Your task to perform on an android device: Open Android settings Image 0: 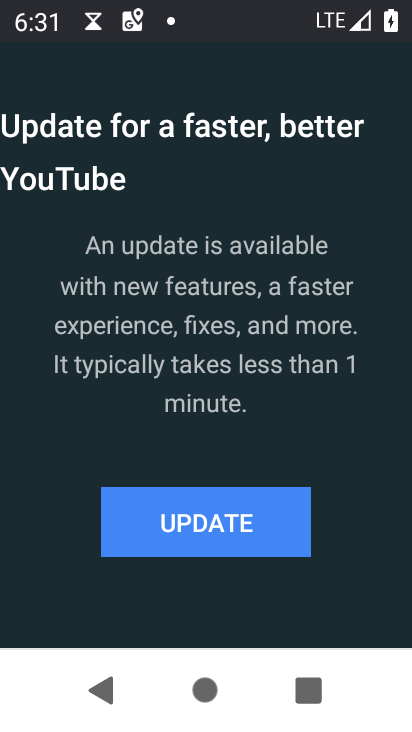
Step 0: press home button
Your task to perform on an android device: Open Android settings Image 1: 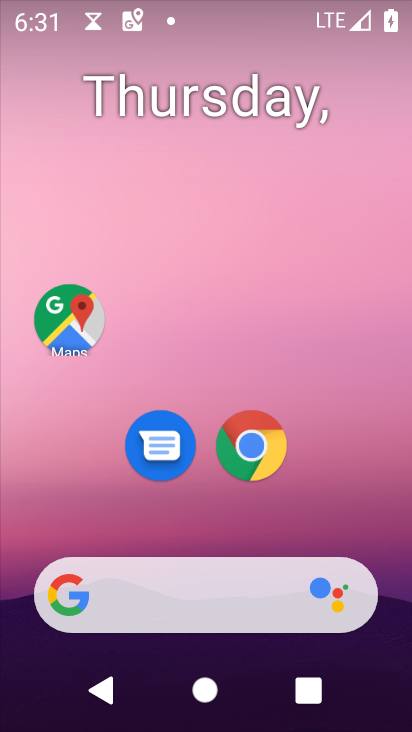
Step 1: drag from (320, 514) to (361, 115)
Your task to perform on an android device: Open Android settings Image 2: 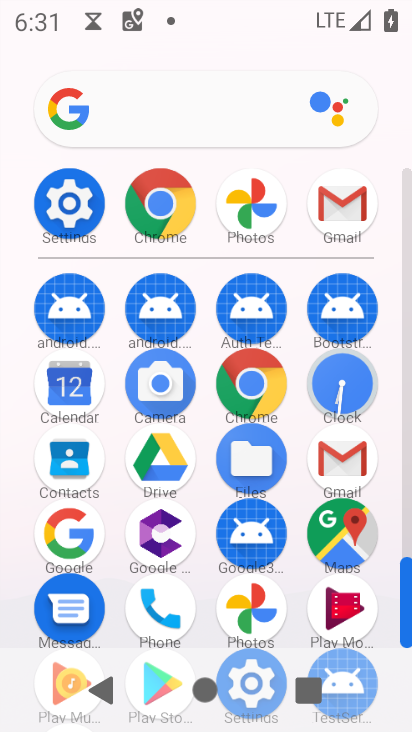
Step 2: click (57, 206)
Your task to perform on an android device: Open Android settings Image 3: 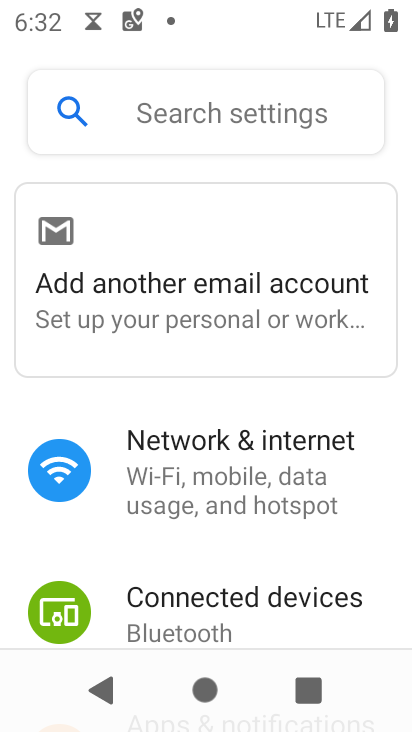
Step 3: drag from (377, 577) to (373, 165)
Your task to perform on an android device: Open Android settings Image 4: 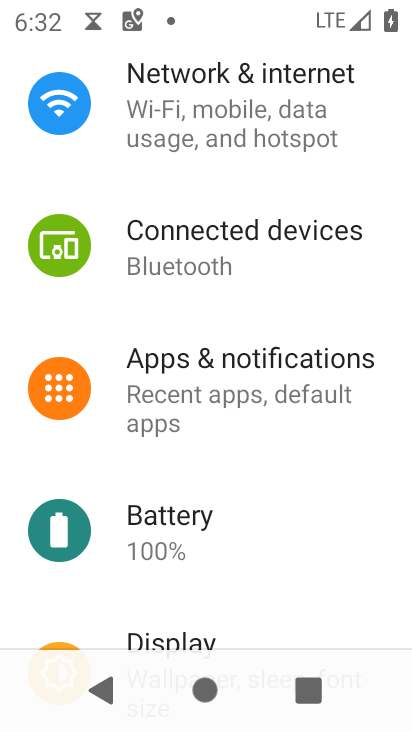
Step 4: drag from (336, 587) to (336, 174)
Your task to perform on an android device: Open Android settings Image 5: 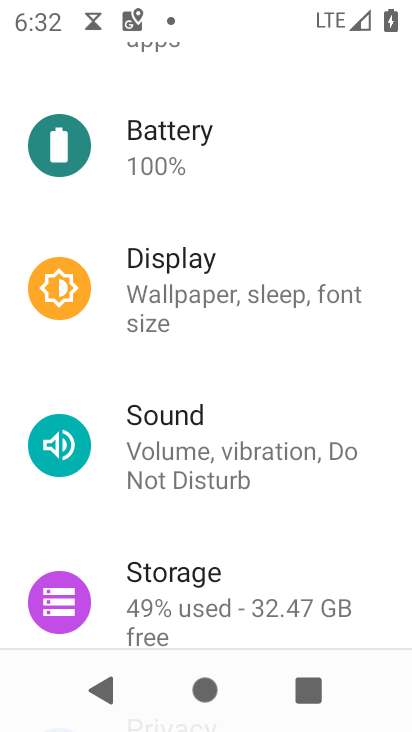
Step 5: drag from (358, 600) to (315, 148)
Your task to perform on an android device: Open Android settings Image 6: 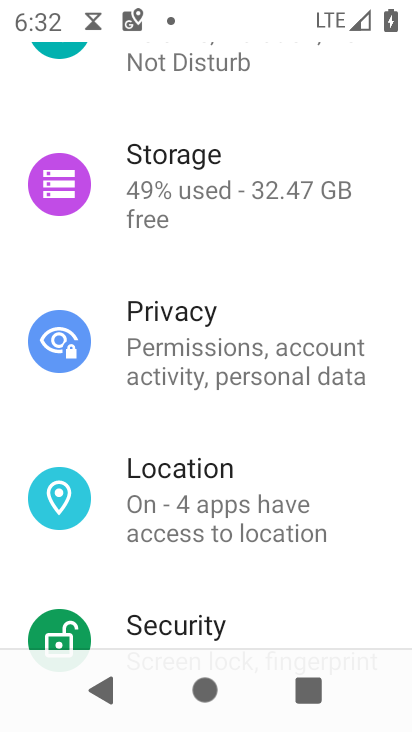
Step 6: drag from (339, 626) to (306, 161)
Your task to perform on an android device: Open Android settings Image 7: 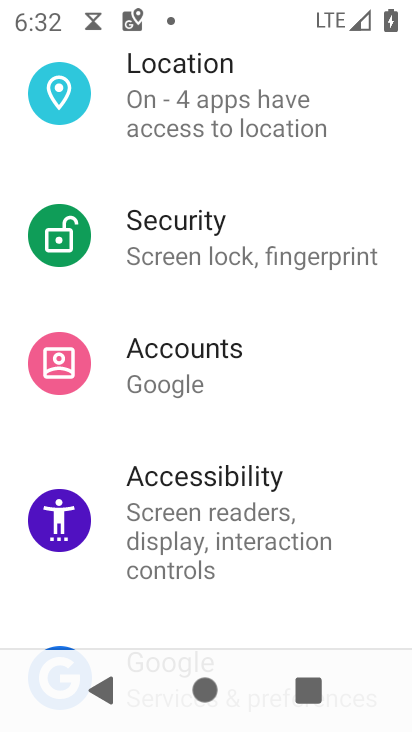
Step 7: drag from (349, 586) to (322, 166)
Your task to perform on an android device: Open Android settings Image 8: 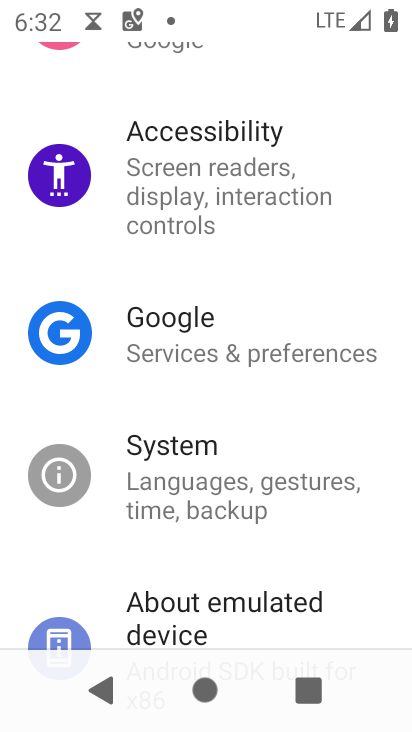
Step 8: drag from (358, 612) to (313, 178)
Your task to perform on an android device: Open Android settings Image 9: 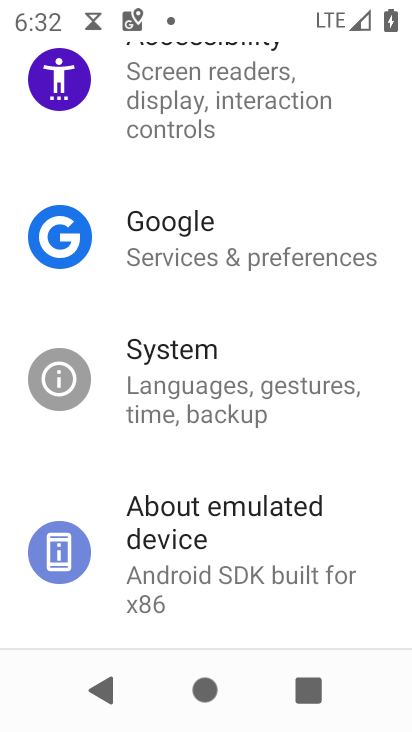
Step 9: click (195, 515)
Your task to perform on an android device: Open Android settings Image 10: 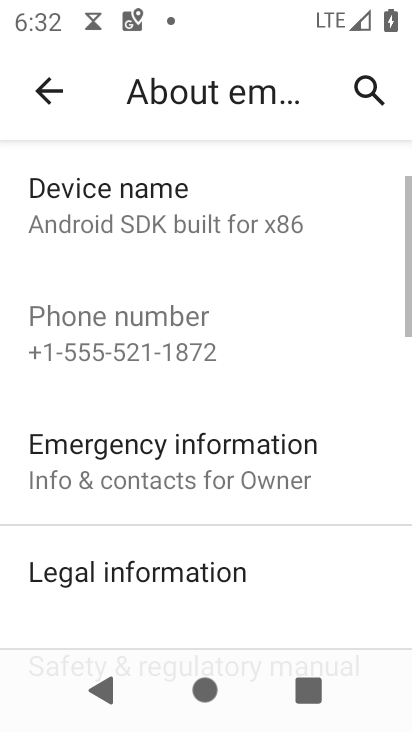
Step 10: drag from (354, 577) to (318, 223)
Your task to perform on an android device: Open Android settings Image 11: 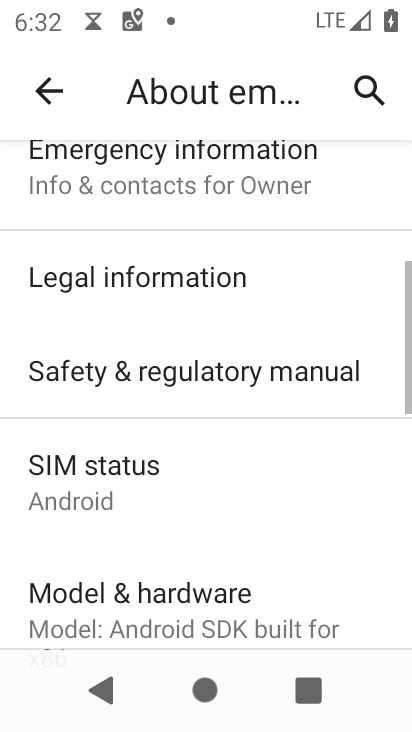
Step 11: drag from (321, 580) to (326, 252)
Your task to perform on an android device: Open Android settings Image 12: 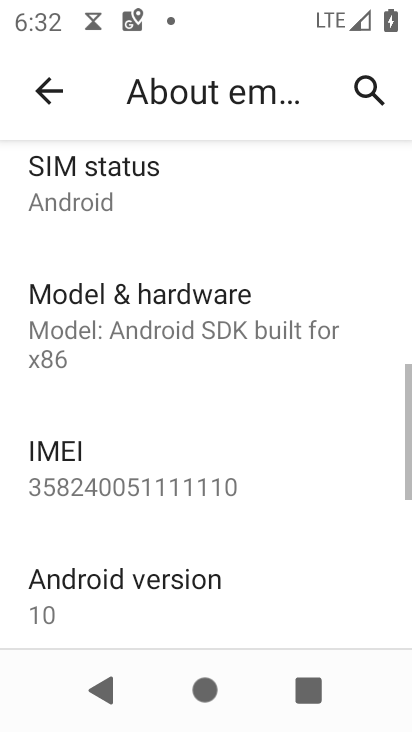
Step 12: click (136, 574)
Your task to perform on an android device: Open Android settings Image 13: 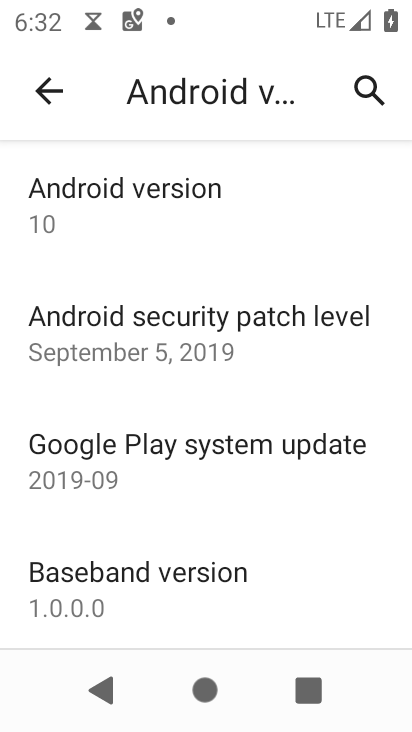
Step 13: task complete